Your task to perform on an android device: Go to internet settings Image 0: 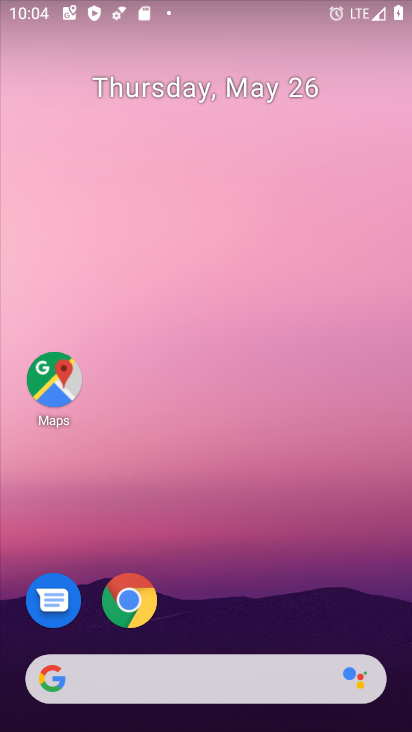
Step 0: drag from (275, 594) to (208, 86)
Your task to perform on an android device: Go to internet settings Image 1: 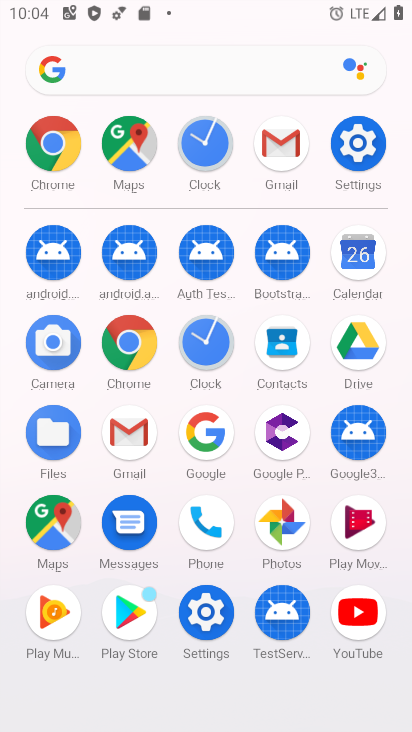
Step 1: click (351, 136)
Your task to perform on an android device: Go to internet settings Image 2: 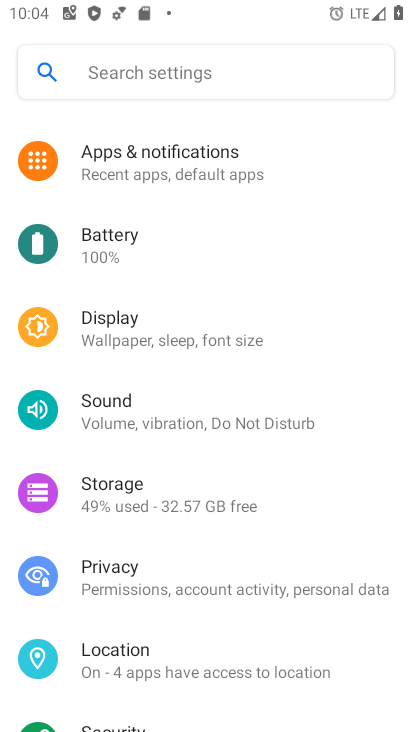
Step 2: drag from (193, 187) to (195, 643)
Your task to perform on an android device: Go to internet settings Image 3: 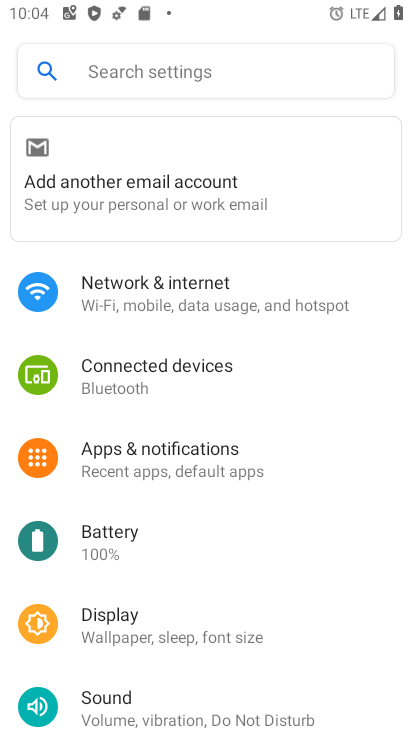
Step 3: click (186, 283)
Your task to perform on an android device: Go to internet settings Image 4: 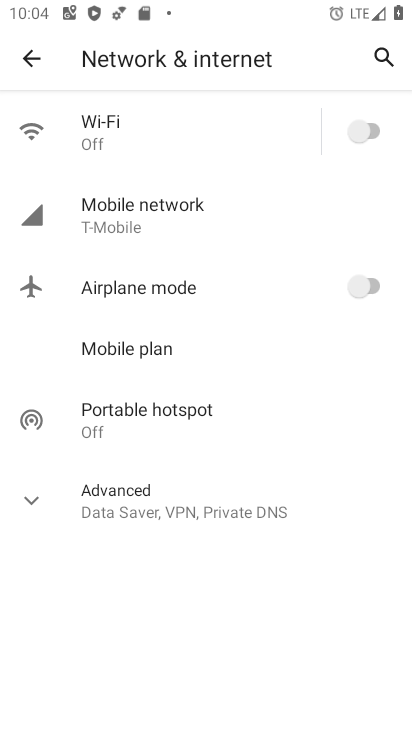
Step 4: click (206, 519)
Your task to perform on an android device: Go to internet settings Image 5: 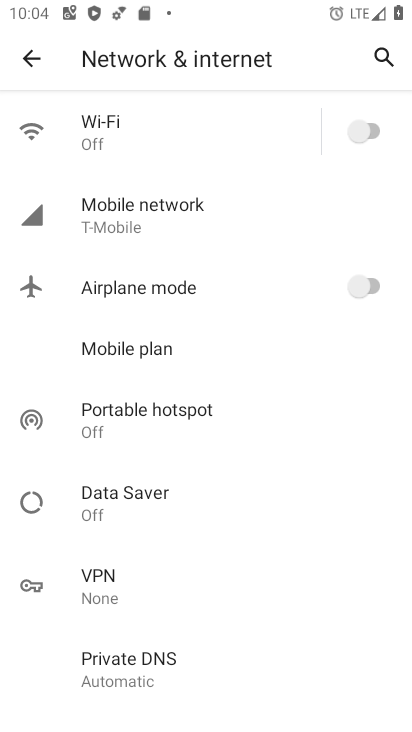
Step 5: task complete